Your task to perform on an android device: Check the weather Image 0: 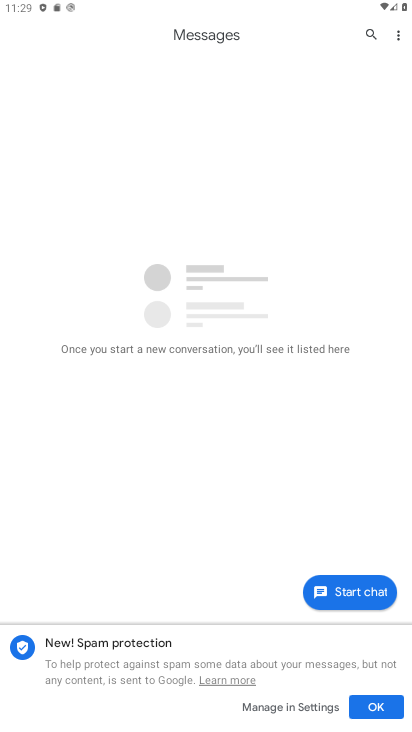
Step 0: drag from (154, 536) to (215, 179)
Your task to perform on an android device: Check the weather Image 1: 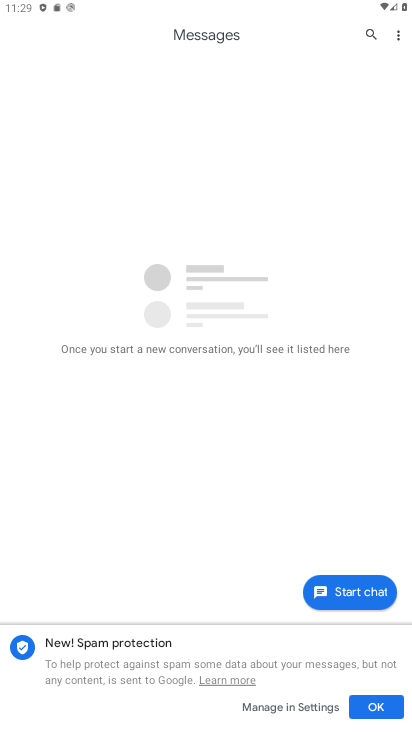
Step 1: press home button
Your task to perform on an android device: Check the weather Image 2: 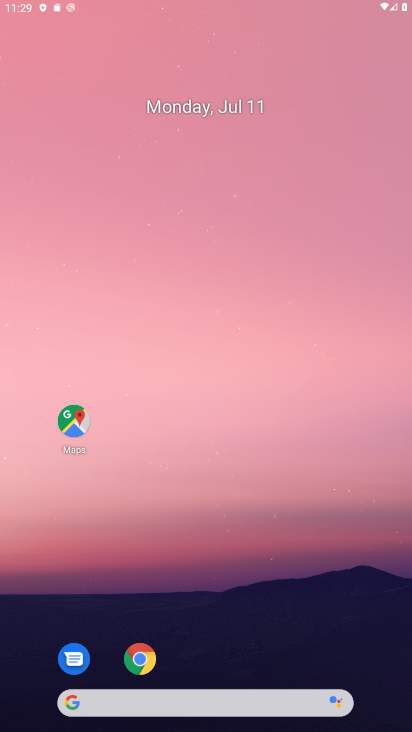
Step 2: drag from (196, 539) to (249, 52)
Your task to perform on an android device: Check the weather Image 3: 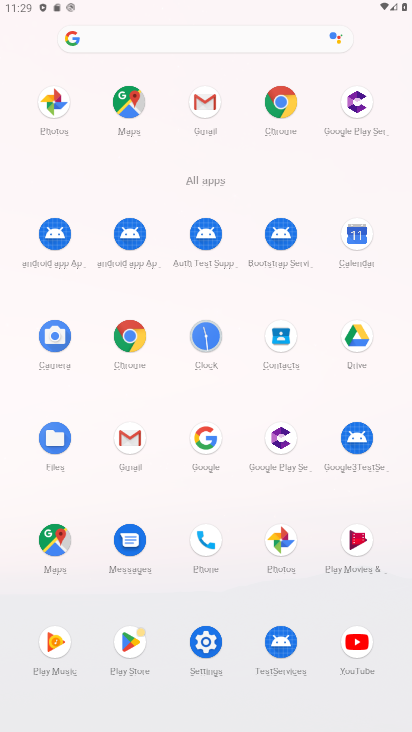
Step 3: click (209, 39)
Your task to perform on an android device: Check the weather Image 4: 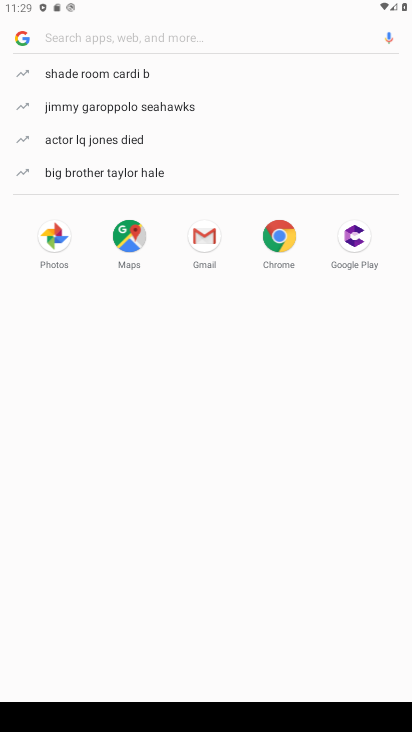
Step 4: click (321, 443)
Your task to perform on an android device: Check the weather Image 5: 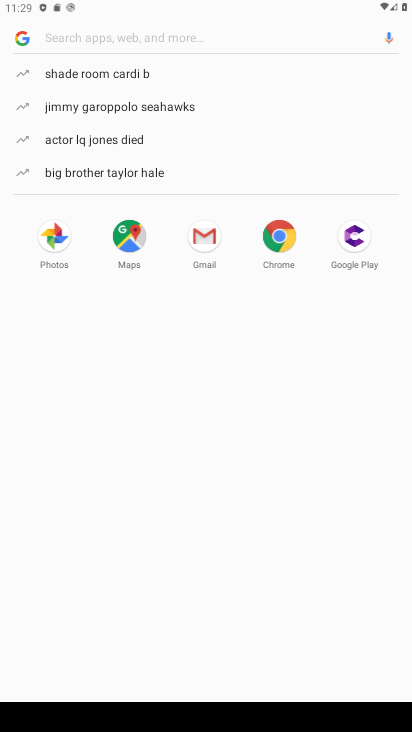
Step 5: type "weather"
Your task to perform on an android device: Check the weather Image 6: 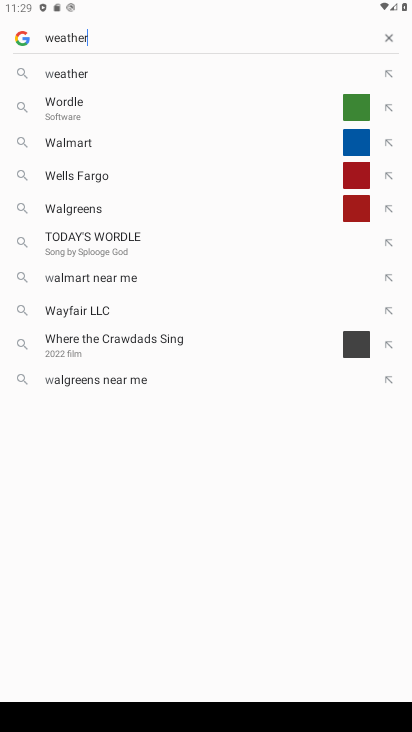
Step 6: type ""
Your task to perform on an android device: Check the weather Image 7: 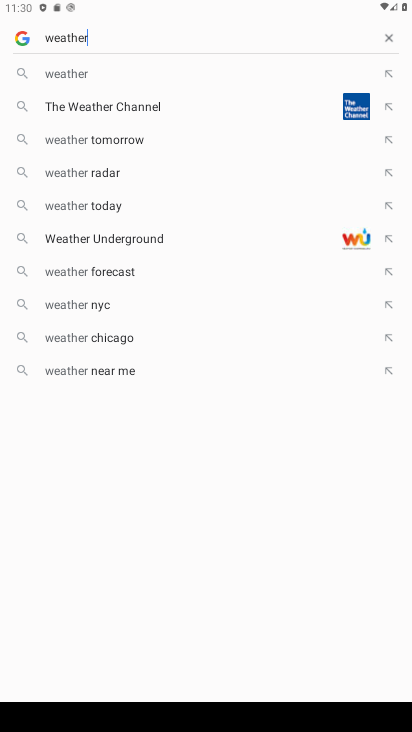
Step 7: click (95, 70)
Your task to perform on an android device: Check the weather Image 8: 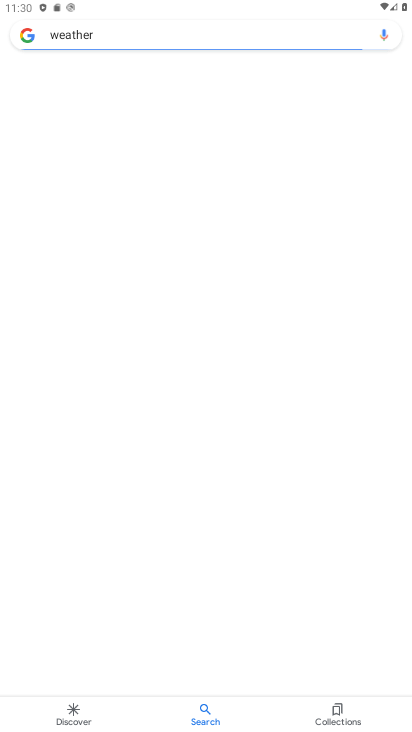
Step 8: click (262, 194)
Your task to perform on an android device: Check the weather Image 9: 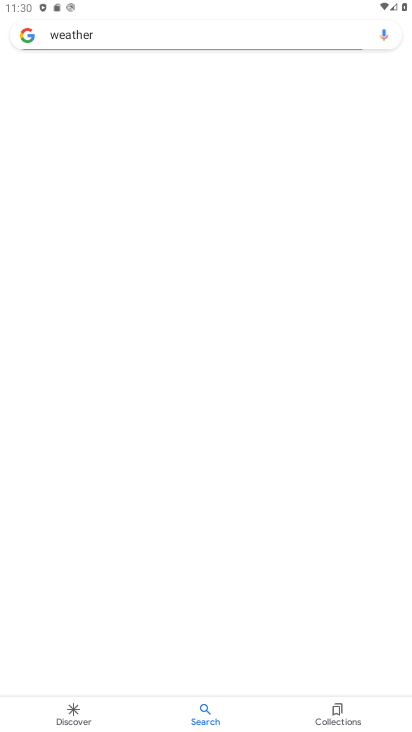
Step 9: task complete